Your task to perform on an android device: Clear the shopping cart on ebay. Add "apple airpods pro" to the cart on ebay Image 0: 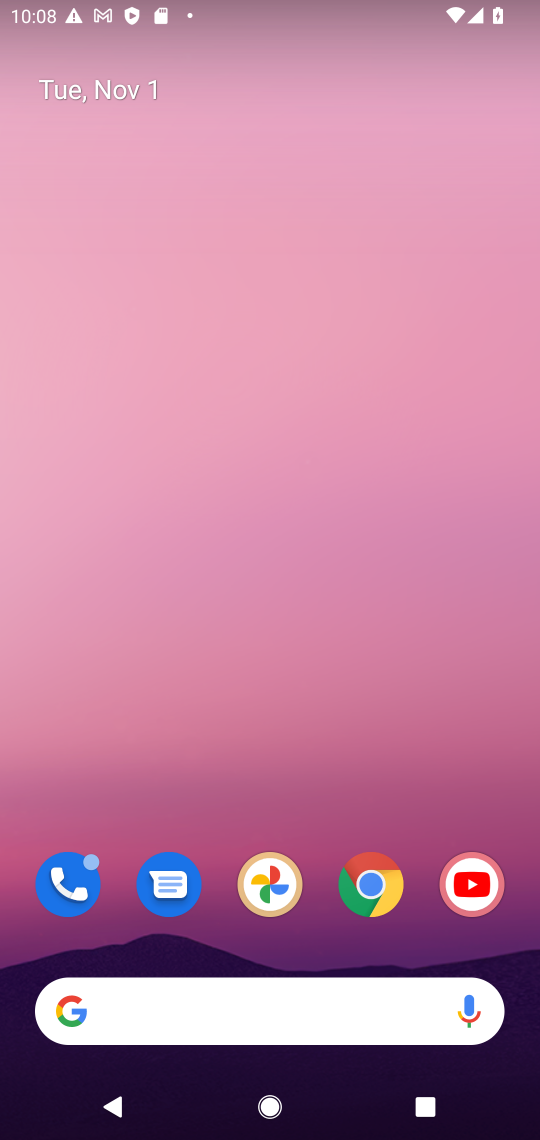
Step 0: click (375, 893)
Your task to perform on an android device: Clear the shopping cart on ebay. Add "apple airpods pro" to the cart on ebay Image 1: 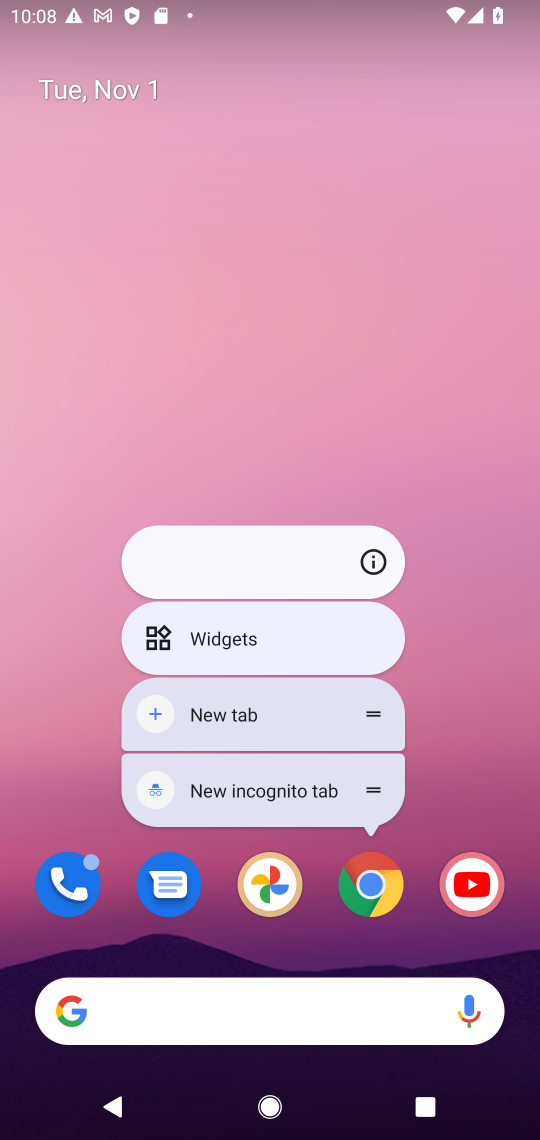
Step 1: click (377, 902)
Your task to perform on an android device: Clear the shopping cart on ebay. Add "apple airpods pro" to the cart on ebay Image 2: 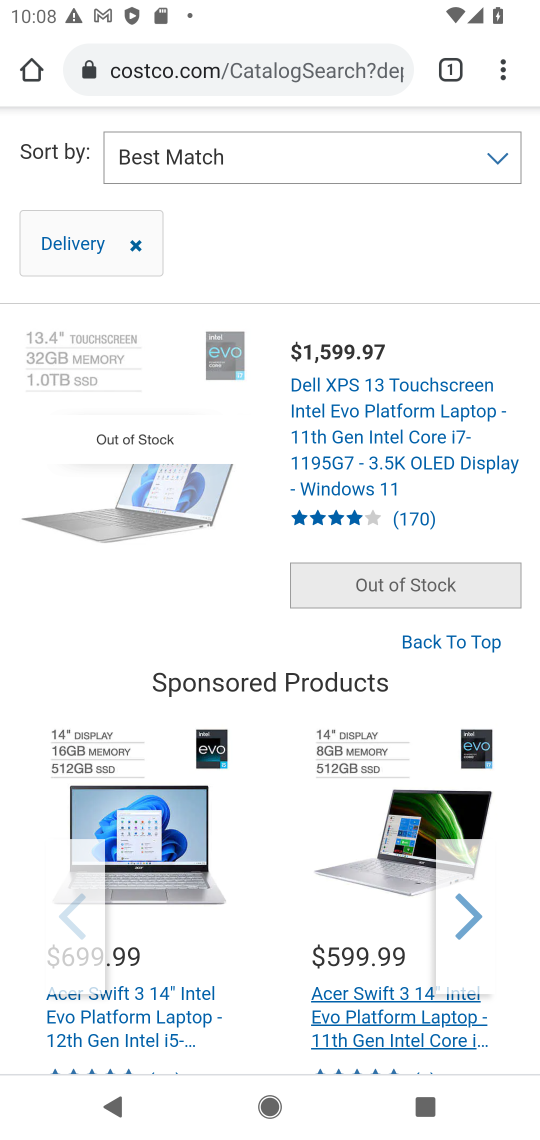
Step 2: click (304, 63)
Your task to perform on an android device: Clear the shopping cart on ebay. Add "apple airpods pro" to the cart on ebay Image 3: 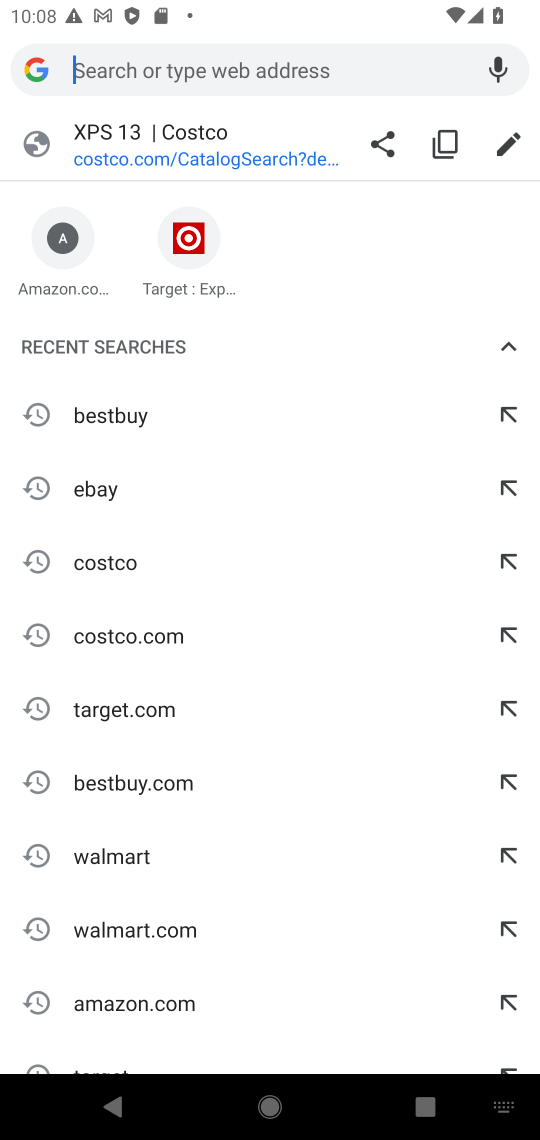
Step 3: type "ebay"
Your task to perform on an android device: Clear the shopping cart on ebay. Add "apple airpods pro" to the cart on ebay Image 4: 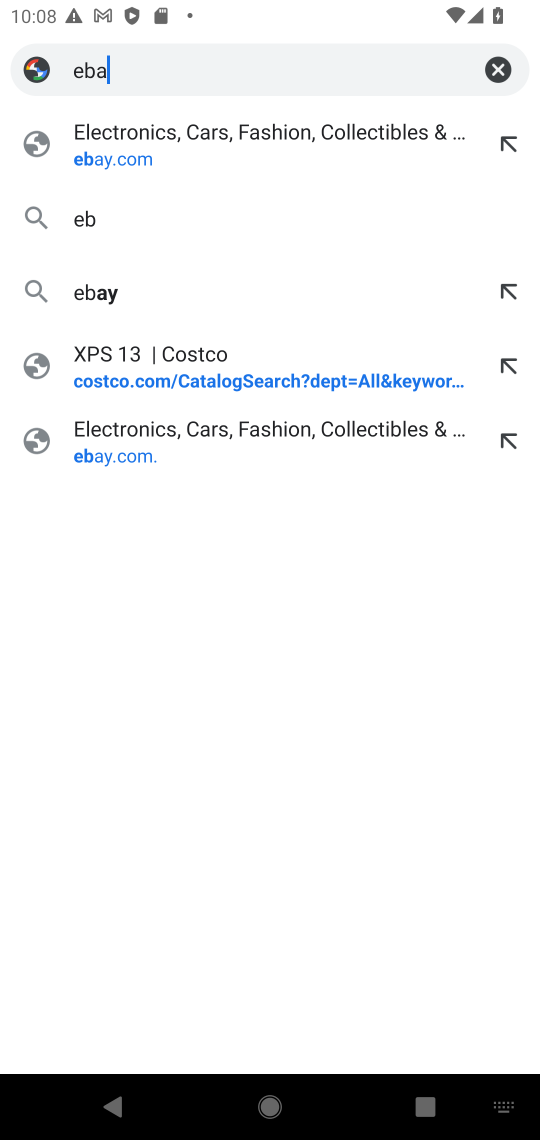
Step 4: type ""
Your task to perform on an android device: Clear the shopping cart on ebay. Add "apple airpods pro" to the cart on ebay Image 5: 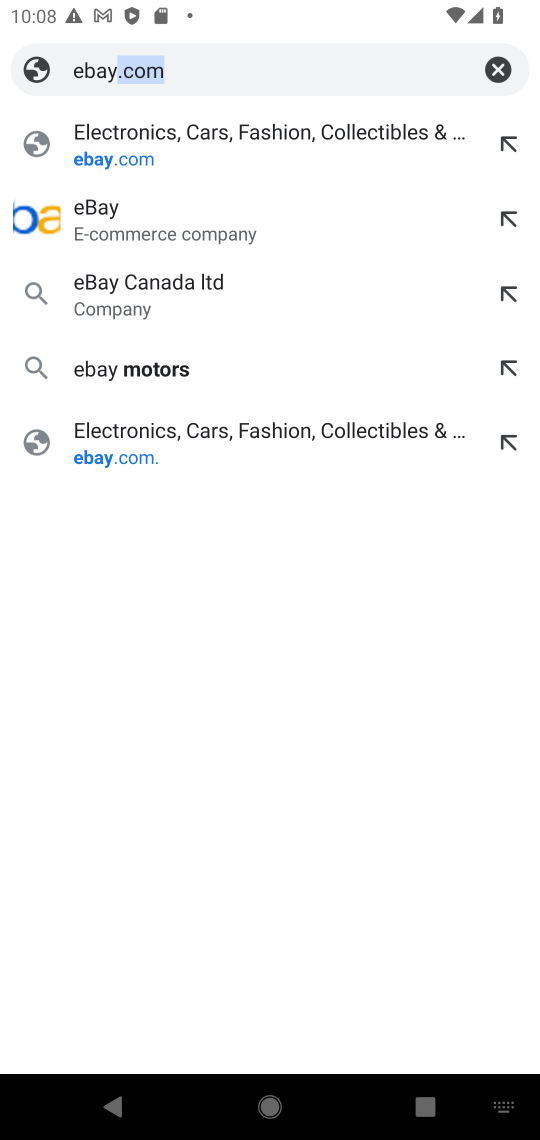
Step 5: press enter
Your task to perform on an android device: Clear the shopping cart on ebay. Add "apple airpods pro" to the cart on ebay Image 6: 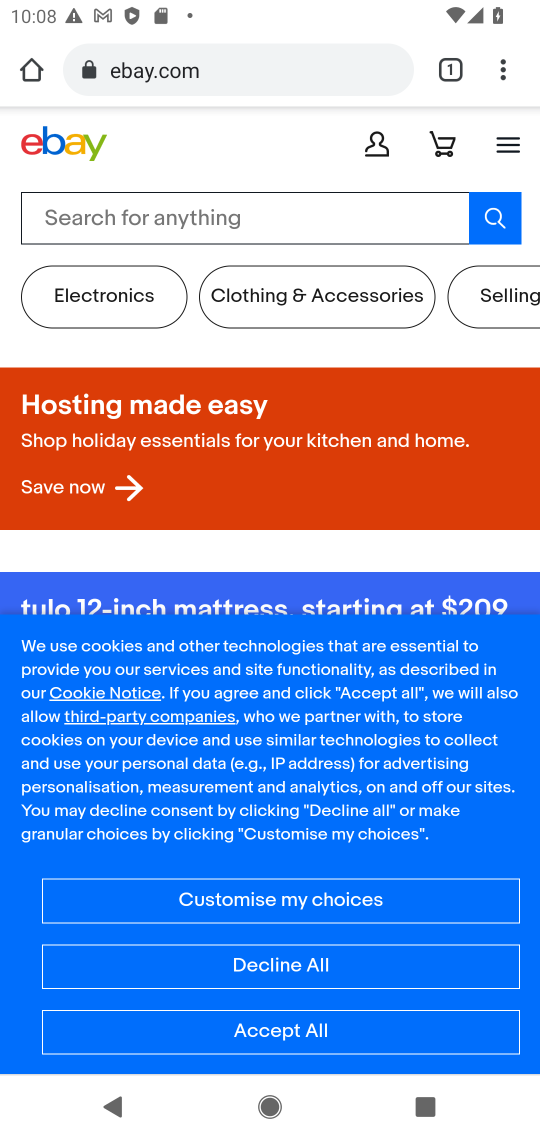
Step 6: click (330, 1039)
Your task to perform on an android device: Clear the shopping cart on ebay. Add "apple airpods pro" to the cart on ebay Image 7: 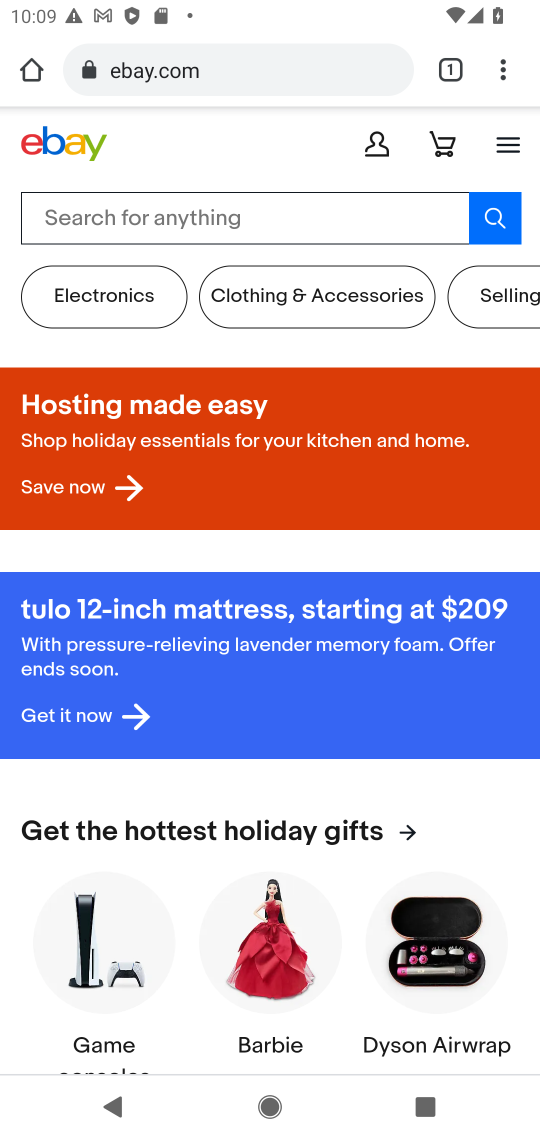
Step 7: click (201, 203)
Your task to perform on an android device: Clear the shopping cart on ebay. Add "apple airpods pro" to the cart on ebay Image 8: 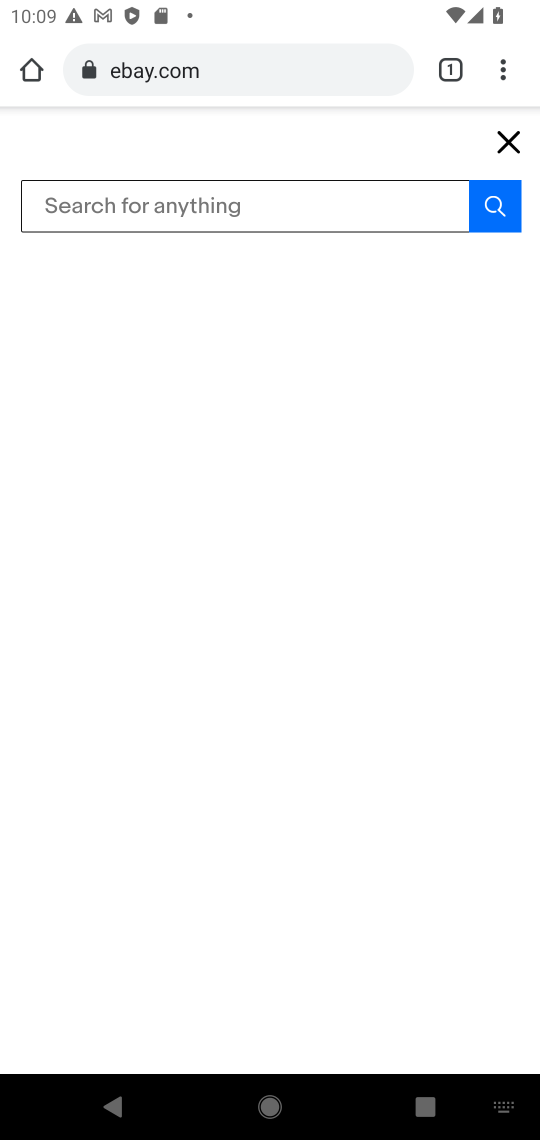
Step 8: type "apple airpods pro"
Your task to perform on an android device: Clear the shopping cart on ebay. Add "apple airpods pro" to the cart on ebay Image 9: 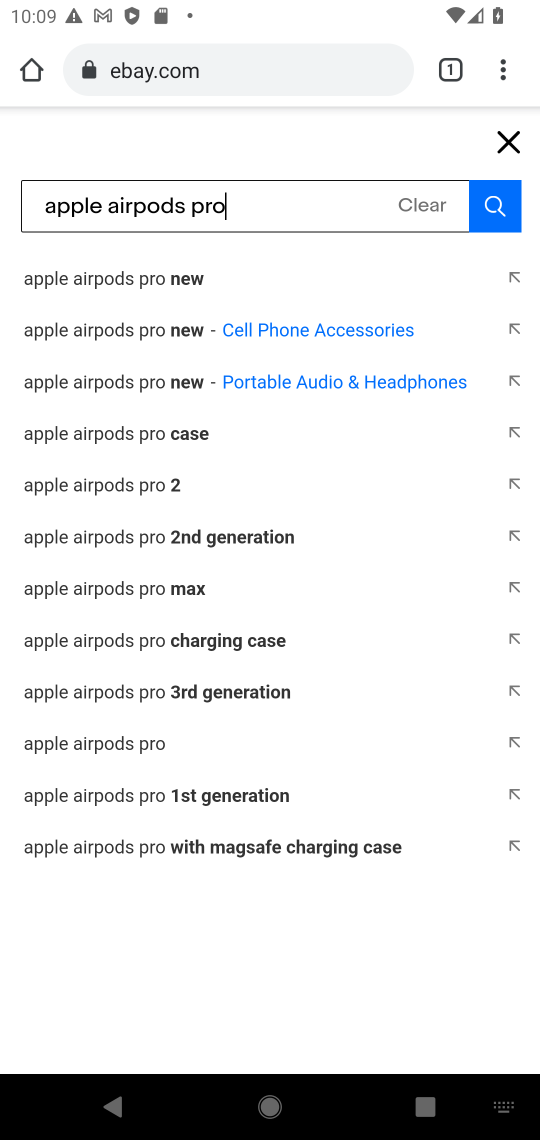
Step 9: press enter
Your task to perform on an android device: Clear the shopping cart on ebay. Add "apple airpods pro" to the cart on ebay Image 10: 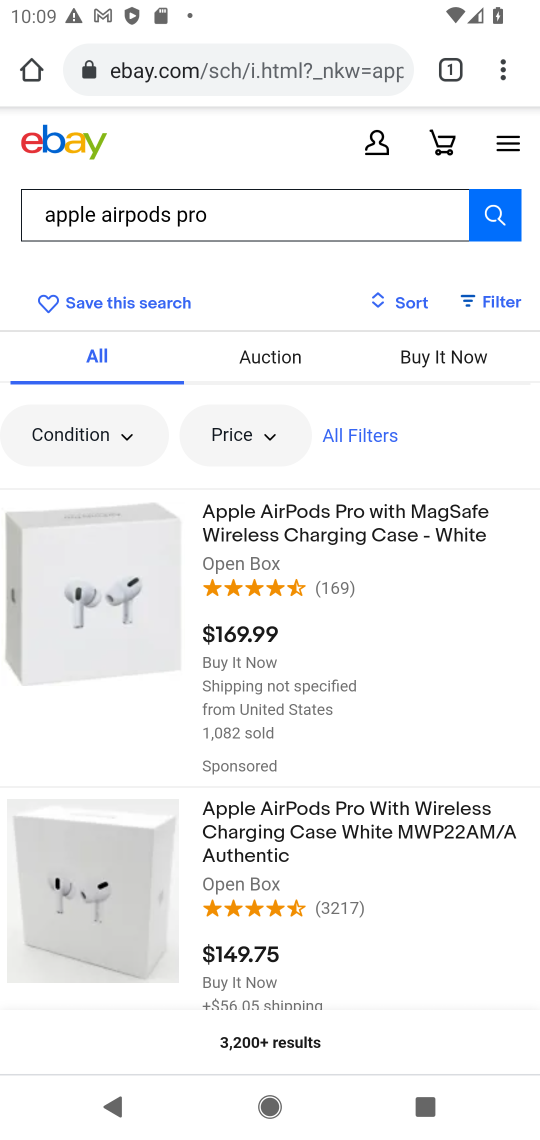
Step 10: click (368, 533)
Your task to perform on an android device: Clear the shopping cart on ebay. Add "apple airpods pro" to the cart on ebay Image 11: 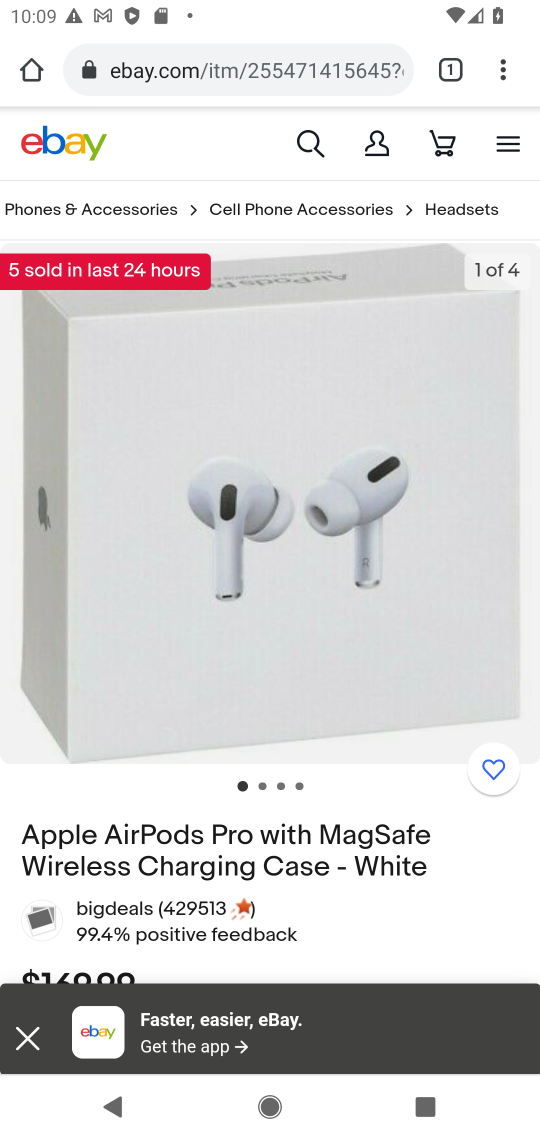
Step 11: click (26, 1033)
Your task to perform on an android device: Clear the shopping cart on ebay. Add "apple airpods pro" to the cart on ebay Image 12: 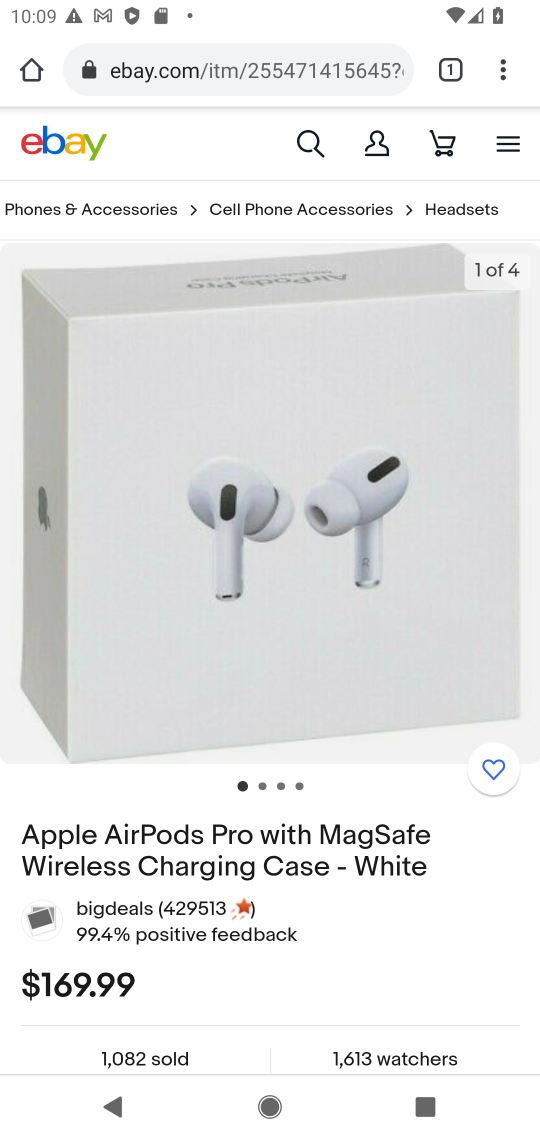
Step 12: drag from (360, 887) to (352, 391)
Your task to perform on an android device: Clear the shopping cart on ebay. Add "apple airpods pro" to the cart on ebay Image 13: 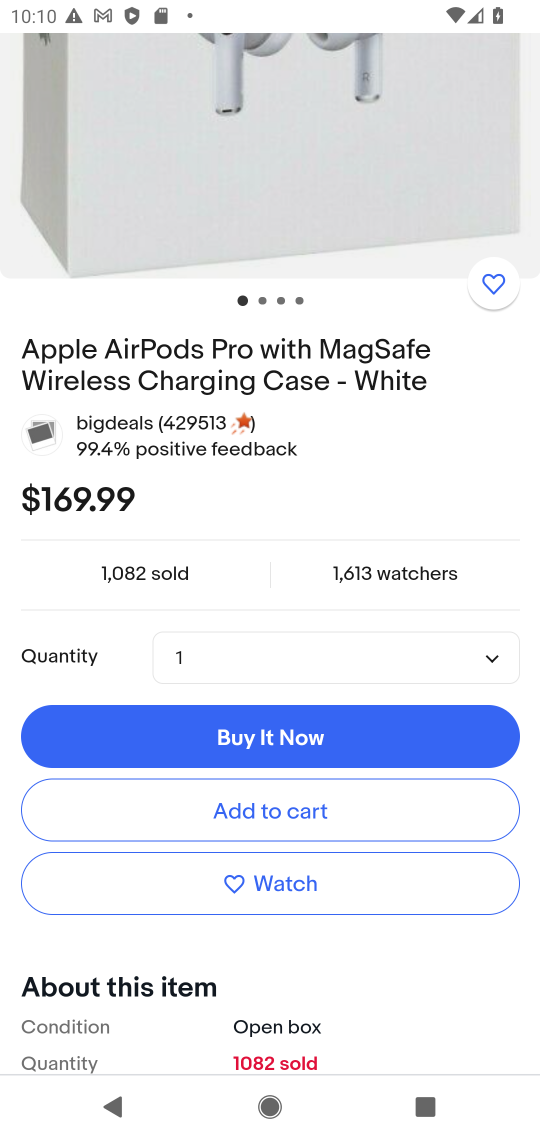
Step 13: click (299, 813)
Your task to perform on an android device: Clear the shopping cart on ebay. Add "apple airpods pro" to the cart on ebay Image 14: 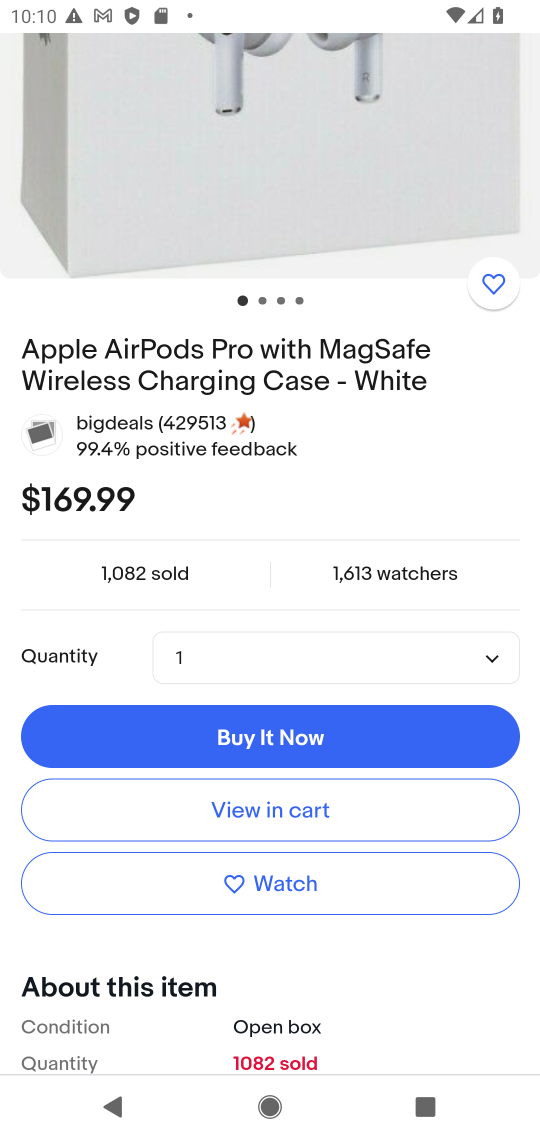
Step 14: click (299, 813)
Your task to perform on an android device: Clear the shopping cart on ebay. Add "apple airpods pro" to the cart on ebay Image 15: 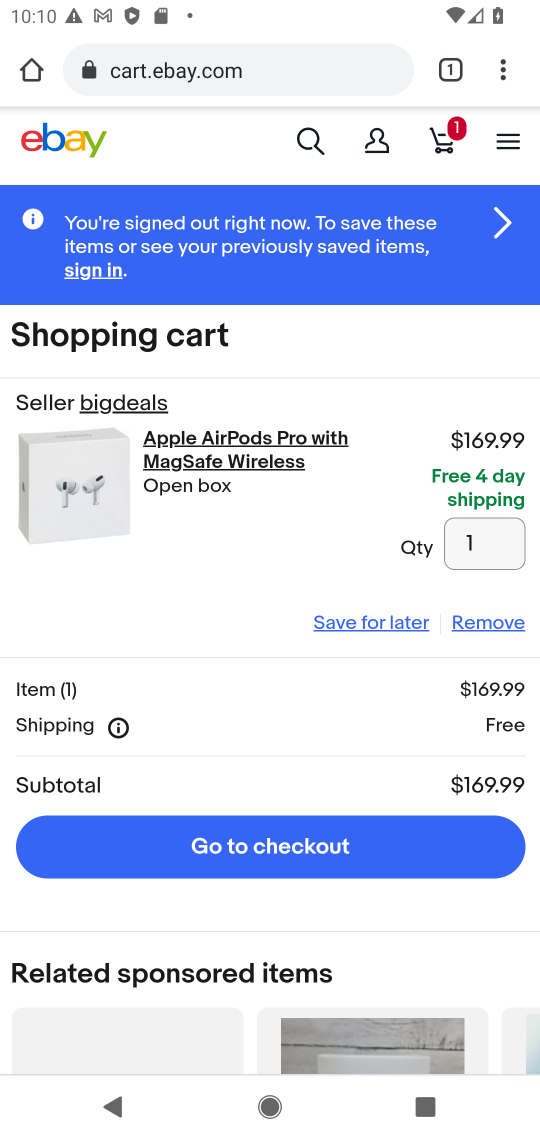
Step 15: task complete